Your task to perform on an android device: Find the nearest electronics store that's open now Image 0: 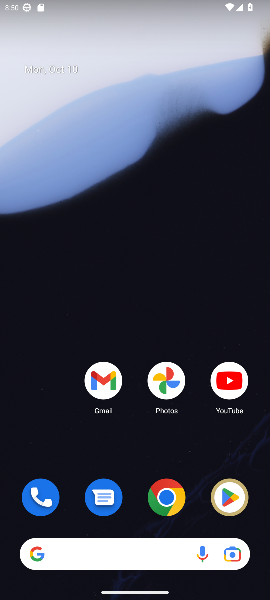
Step 0: drag from (128, 329) to (149, 188)
Your task to perform on an android device: Find the nearest electronics store that's open now Image 1: 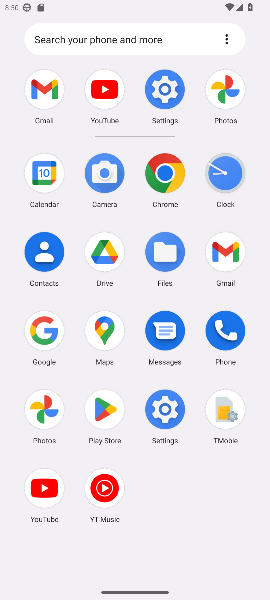
Step 1: click (45, 332)
Your task to perform on an android device: Find the nearest electronics store that's open now Image 2: 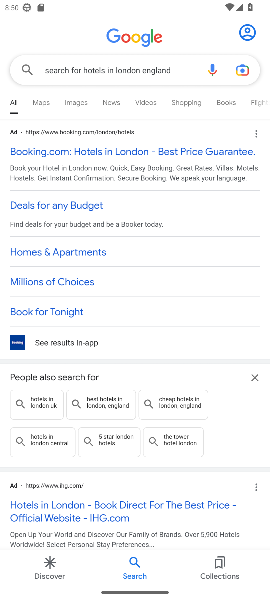
Step 2: click (124, 67)
Your task to perform on an android device: Find the nearest electronics store that's open now Image 3: 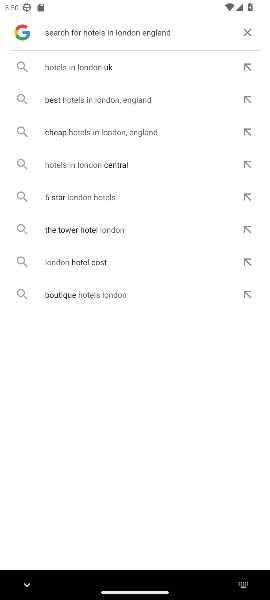
Step 3: click (250, 33)
Your task to perform on an android device: Find the nearest electronics store that's open now Image 4: 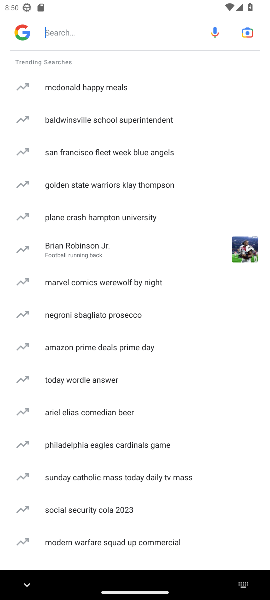
Step 4: click (139, 35)
Your task to perform on an android device: Find the nearest electronics store that's open now Image 5: 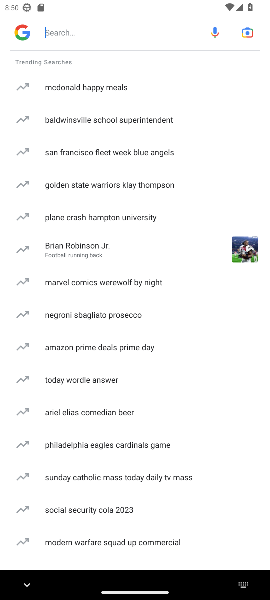
Step 5: type "Find the nearest electronics store that's open now "
Your task to perform on an android device: Find the nearest electronics store that's open now Image 6: 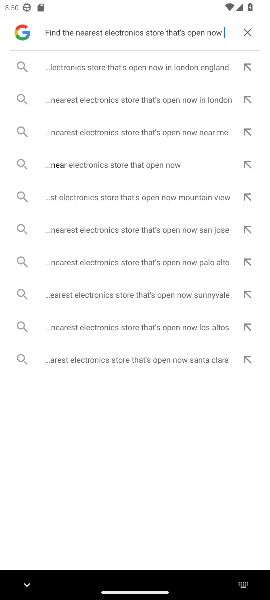
Step 6: click (104, 69)
Your task to perform on an android device: Find the nearest electronics store that's open now Image 7: 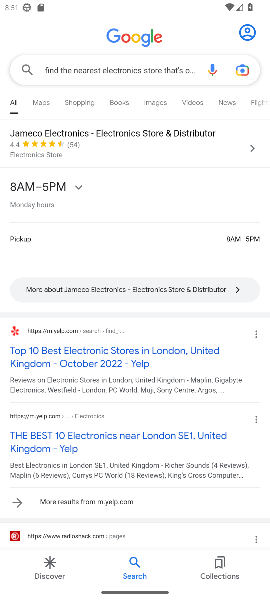
Step 7: click (93, 134)
Your task to perform on an android device: Find the nearest electronics store that's open now Image 8: 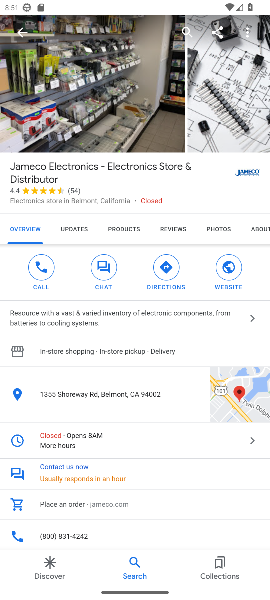
Step 8: task complete